Your task to perform on an android device: turn off airplane mode Image 0: 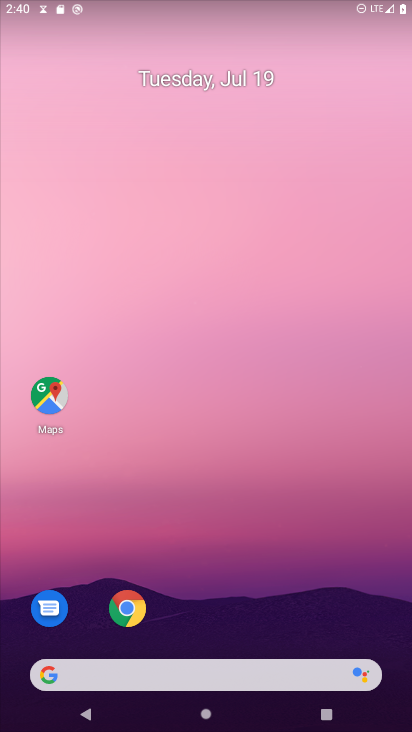
Step 0: drag from (216, 641) to (239, 31)
Your task to perform on an android device: turn off airplane mode Image 1: 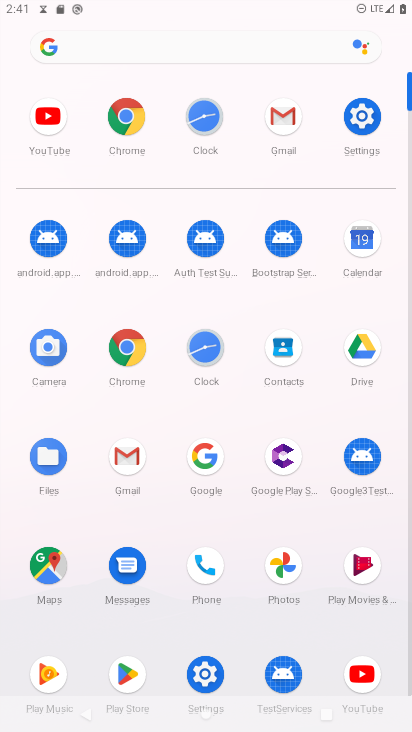
Step 1: click (349, 121)
Your task to perform on an android device: turn off airplane mode Image 2: 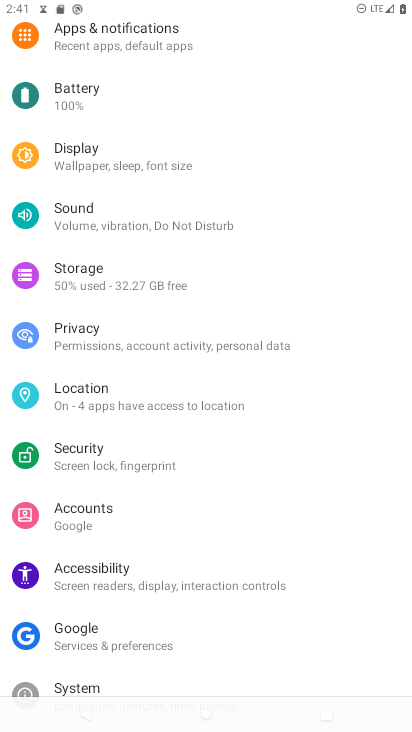
Step 2: drag from (139, 60) to (146, 392)
Your task to perform on an android device: turn off airplane mode Image 3: 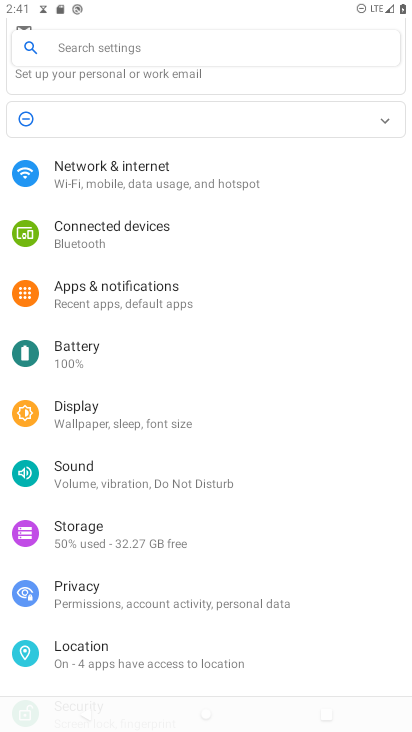
Step 3: click (177, 179)
Your task to perform on an android device: turn off airplane mode Image 4: 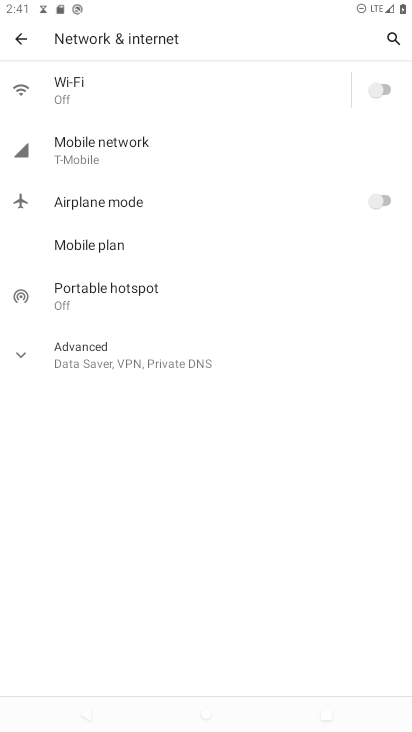
Step 4: task complete